Your task to perform on an android device: Is it going to rain today? Image 0: 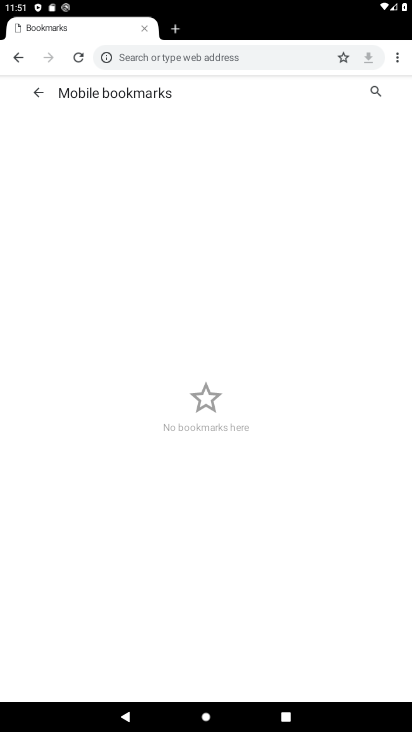
Step 0: press home button
Your task to perform on an android device: Is it going to rain today? Image 1: 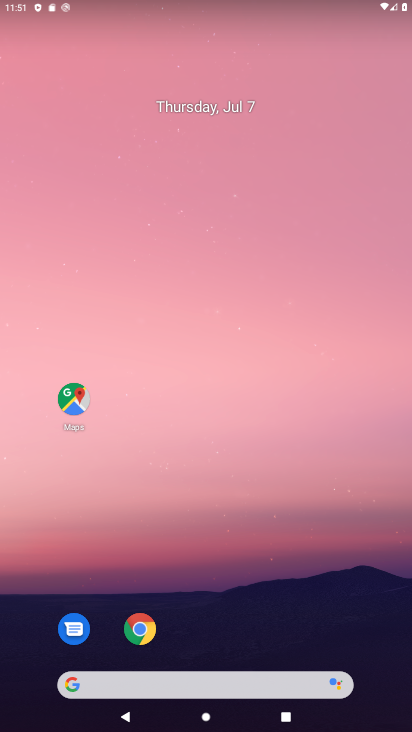
Step 1: click (141, 631)
Your task to perform on an android device: Is it going to rain today? Image 2: 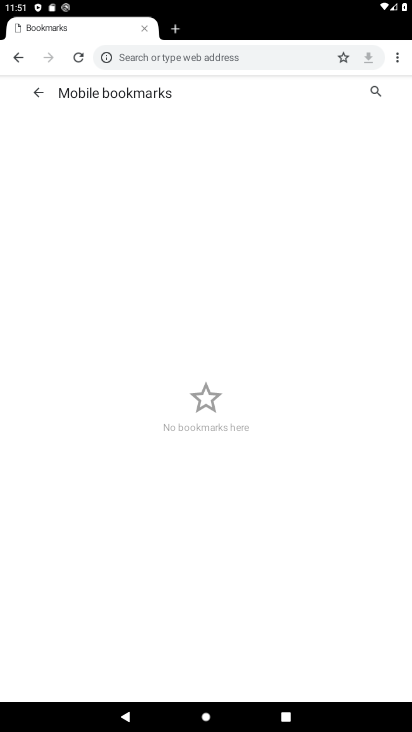
Step 2: press home button
Your task to perform on an android device: Is it going to rain today? Image 3: 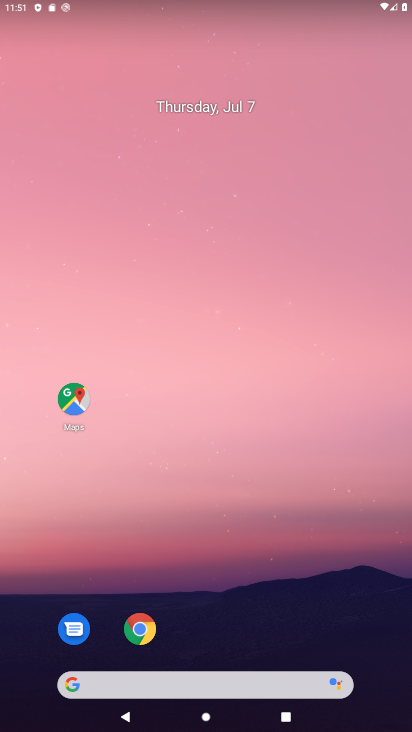
Step 3: click (152, 692)
Your task to perform on an android device: Is it going to rain today? Image 4: 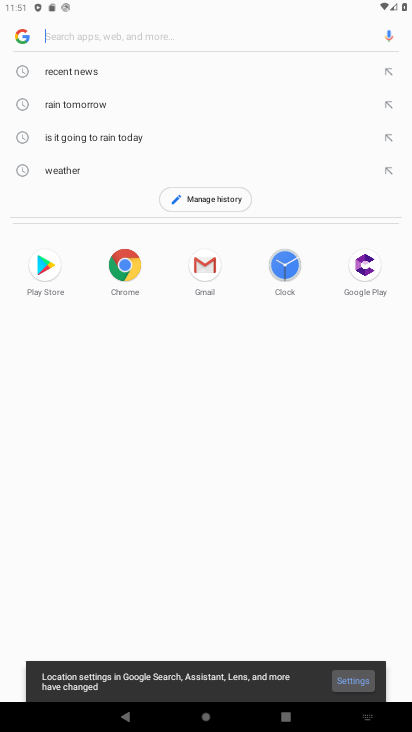
Step 4: click (71, 166)
Your task to perform on an android device: Is it going to rain today? Image 5: 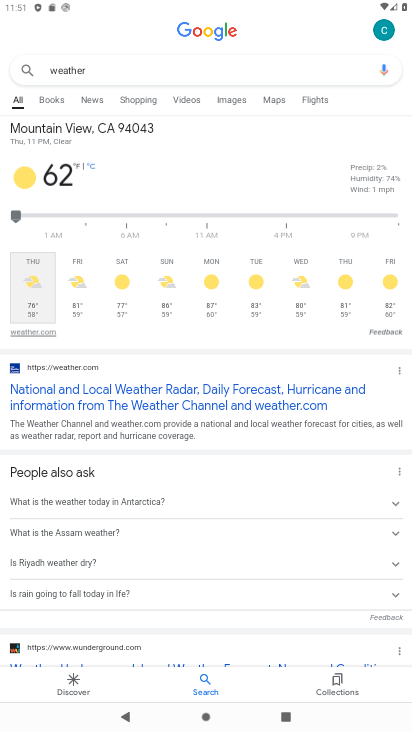
Step 5: task complete